Your task to perform on an android device: turn on improve location accuracy Image 0: 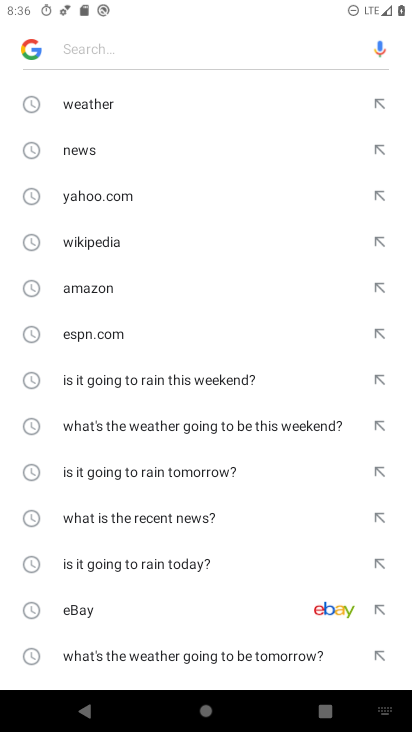
Step 0: press home button
Your task to perform on an android device: turn on improve location accuracy Image 1: 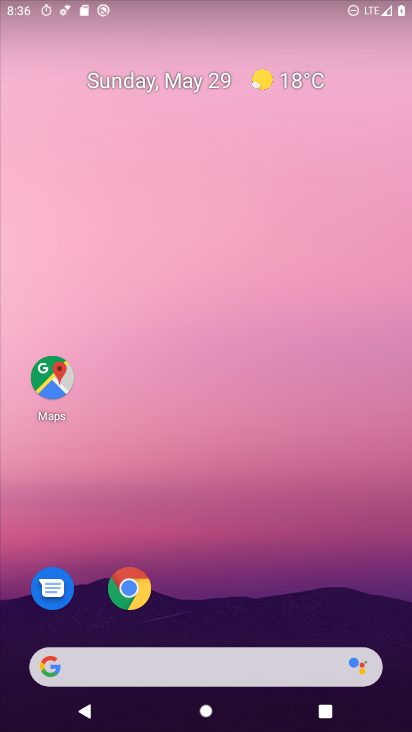
Step 1: drag from (254, 581) to (275, 240)
Your task to perform on an android device: turn on improve location accuracy Image 2: 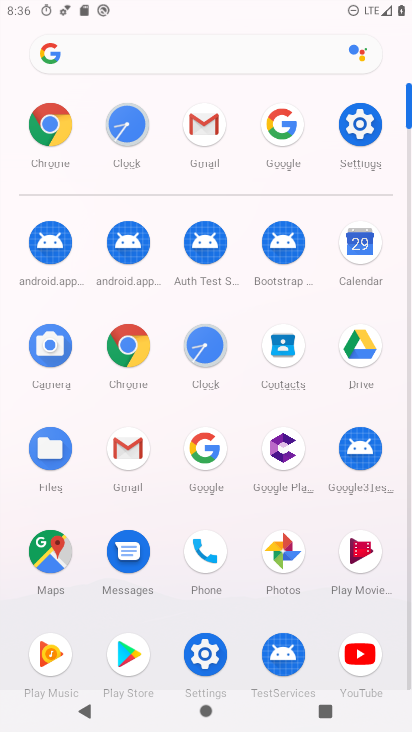
Step 2: click (359, 123)
Your task to perform on an android device: turn on improve location accuracy Image 3: 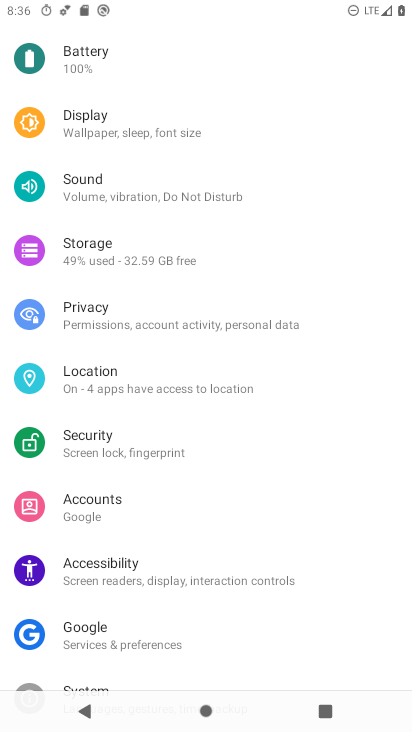
Step 3: click (93, 383)
Your task to perform on an android device: turn on improve location accuracy Image 4: 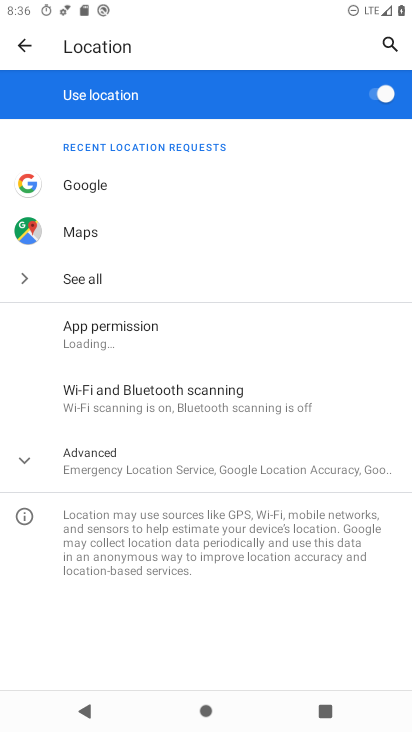
Step 4: click (120, 468)
Your task to perform on an android device: turn on improve location accuracy Image 5: 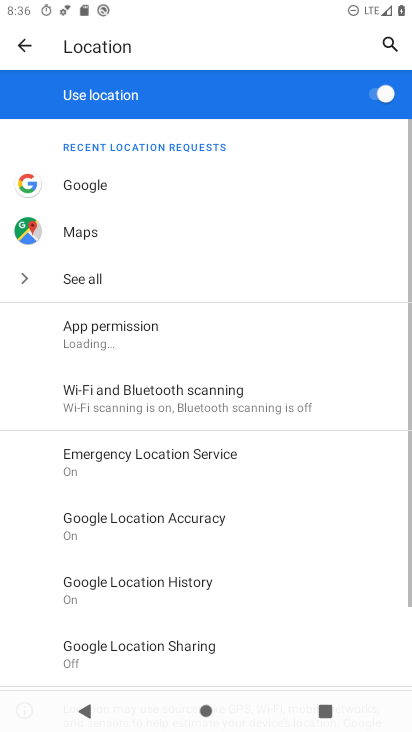
Step 5: drag from (213, 518) to (209, 391)
Your task to perform on an android device: turn on improve location accuracy Image 6: 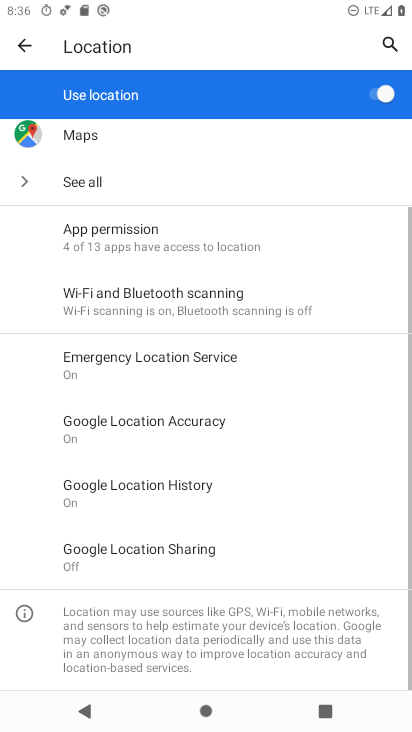
Step 6: click (149, 408)
Your task to perform on an android device: turn on improve location accuracy Image 7: 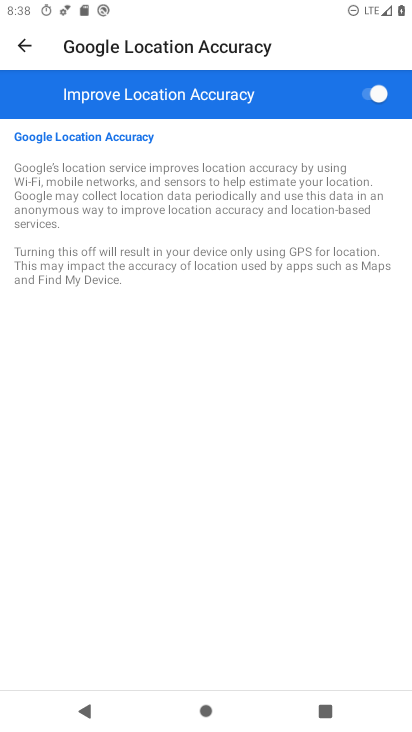
Step 7: task complete